Your task to perform on an android device: turn off notifications in google photos Image 0: 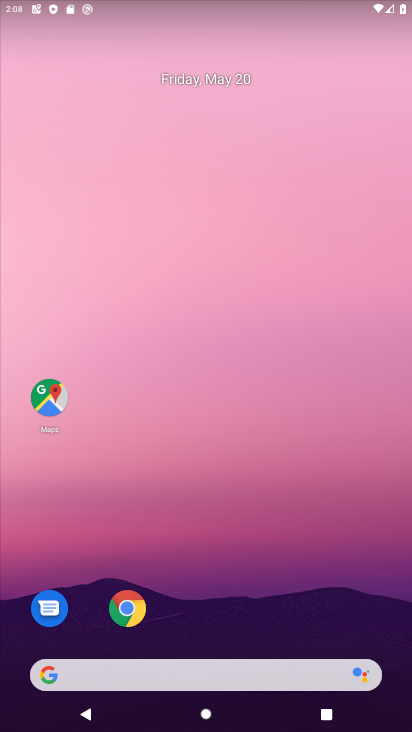
Step 0: drag from (211, 542) to (287, 47)
Your task to perform on an android device: turn off notifications in google photos Image 1: 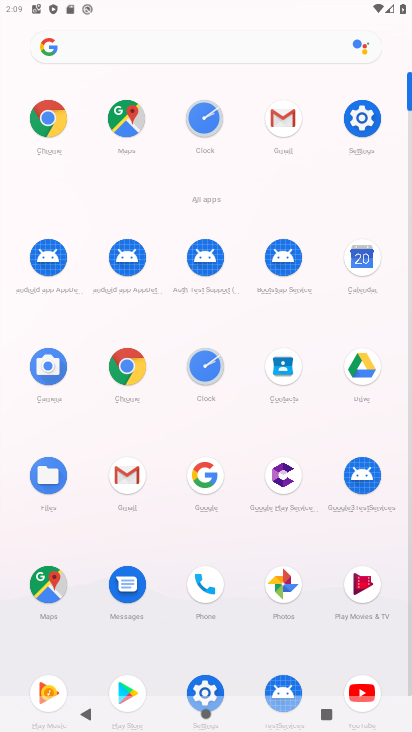
Step 1: click (278, 587)
Your task to perform on an android device: turn off notifications in google photos Image 2: 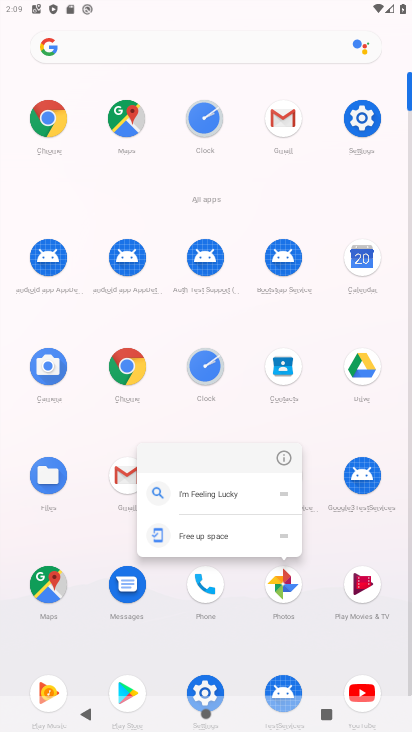
Step 2: click (285, 457)
Your task to perform on an android device: turn off notifications in google photos Image 3: 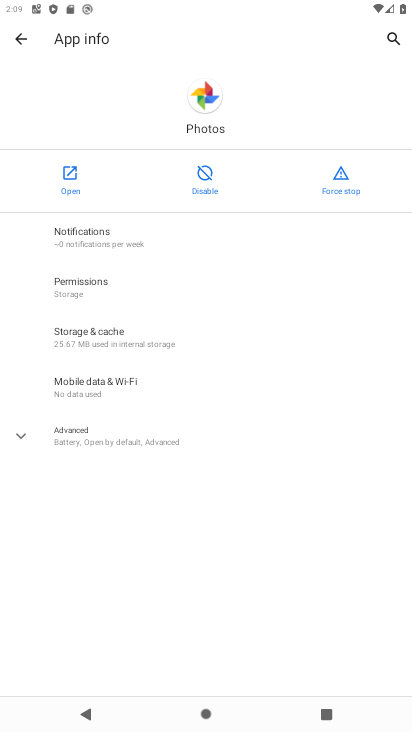
Step 3: click (76, 222)
Your task to perform on an android device: turn off notifications in google photos Image 4: 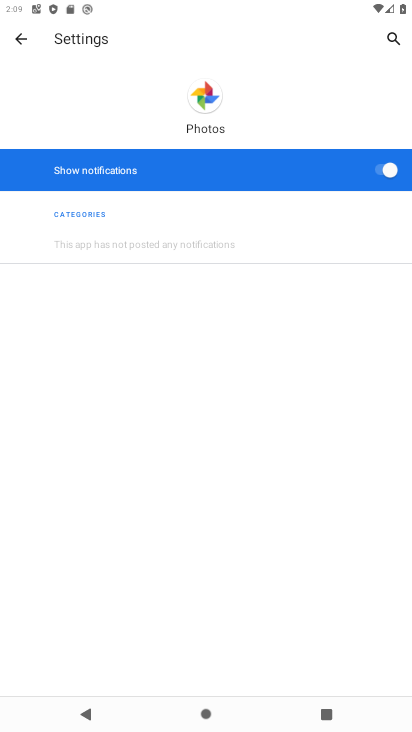
Step 4: click (383, 171)
Your task to perform on an android device: turn off notifications in google photos Image 5: 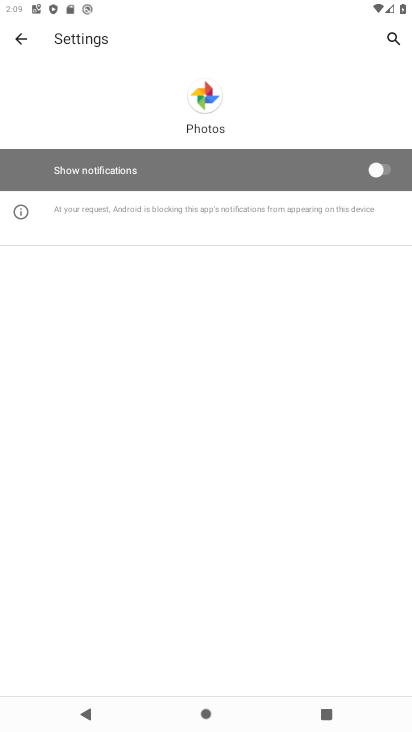
Step 5: task complete